Your task to perform on an android device: Turn off the flashlight Image 0: 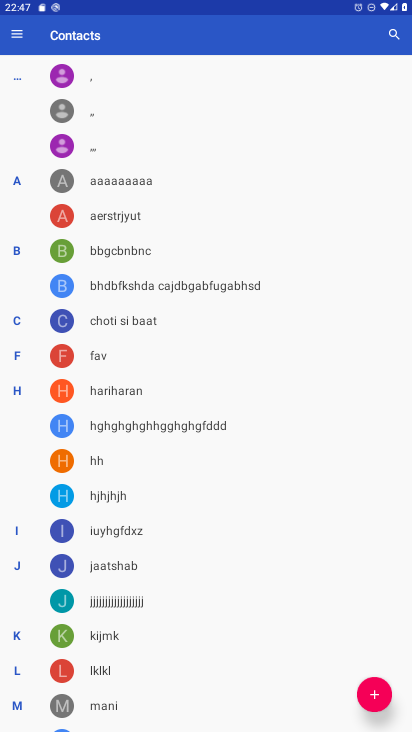
Step 0: press home button
Your task to perform on an android device: Turn off the flashlight Image 1: 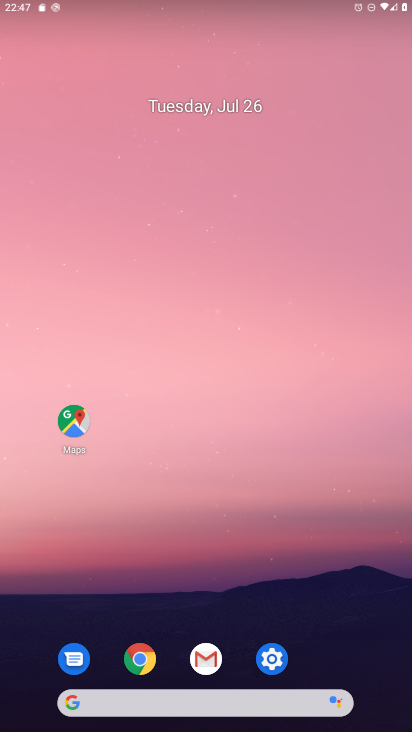
Step 1: click (270, 662)
Your task to perform on an android device: Turn off the flashlight Image 2: 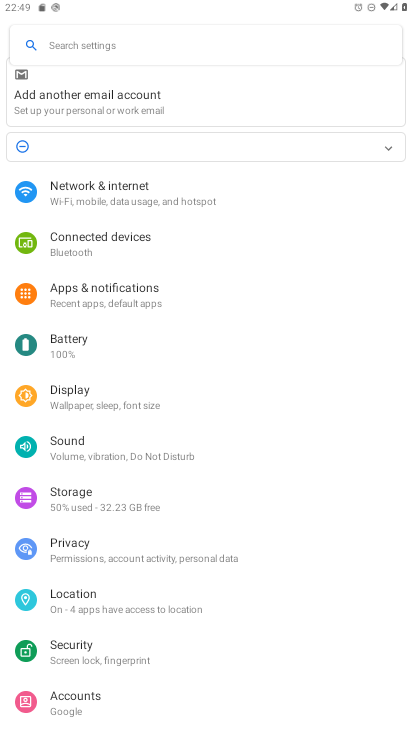
Step 2: click (79, 35)
Your task to perform on an android device: Turn off the flashlight Image 3: 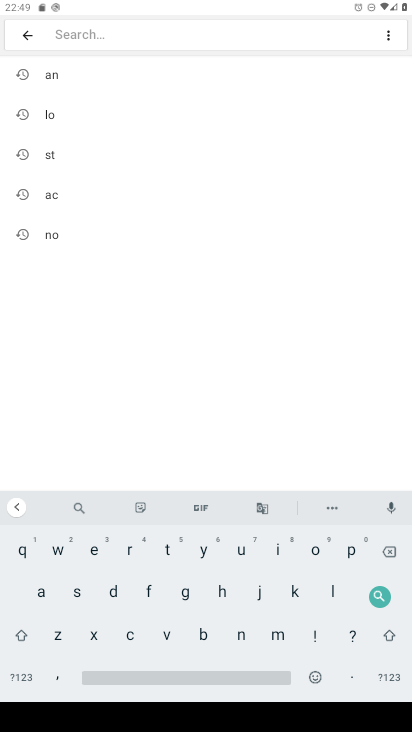
Step 3: click (144, 586)
Your task to perform on an android device: Turn off the flashlight Image 4: 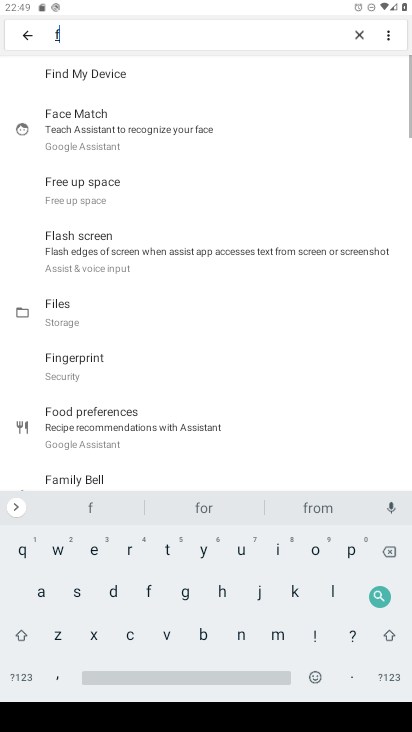
Step 4: click (330, 594)
Your task to perform on an android device: Turn off the flashlight Image 5: 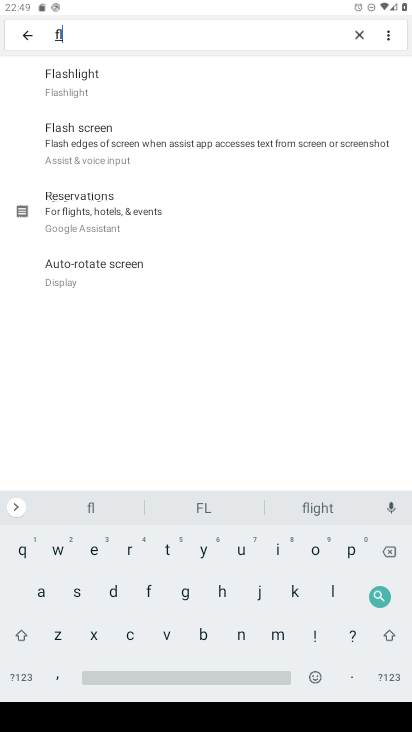
Step 5: click (103, 90)
Your task to perform on an android device: Turn off the flashlight Image 6: 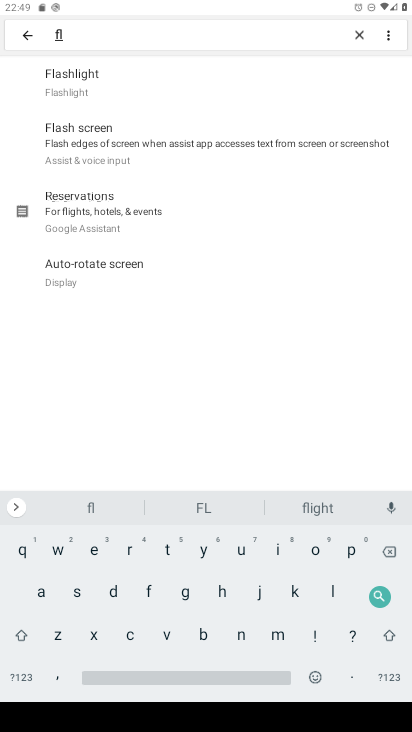
Step 6: task complete